Your task to perform on an android device: Do I have any events tomorrow? Image 0: 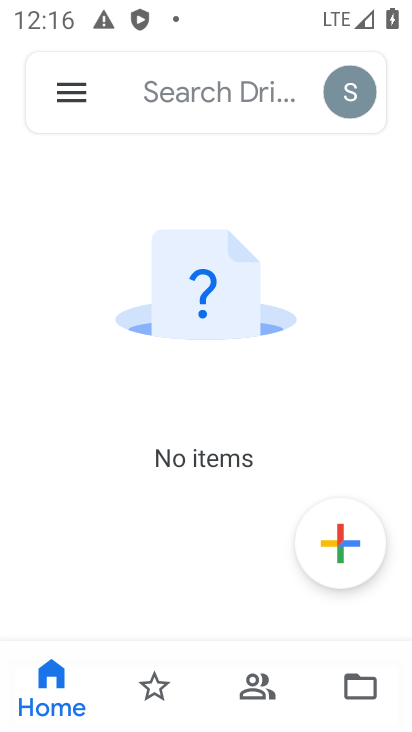
Step 0: press back button
Your task to perform on an android device: Do I have any events tomorrow? Image 1: 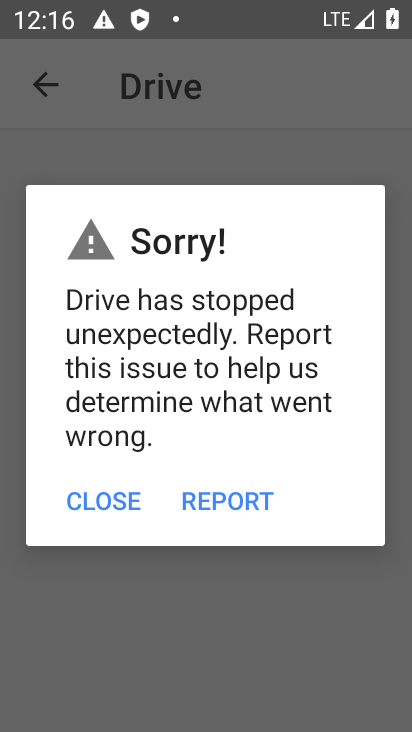
Step 1: press back button
Your task to perform on an android device: Do I have any events tomorrow? Image 2: 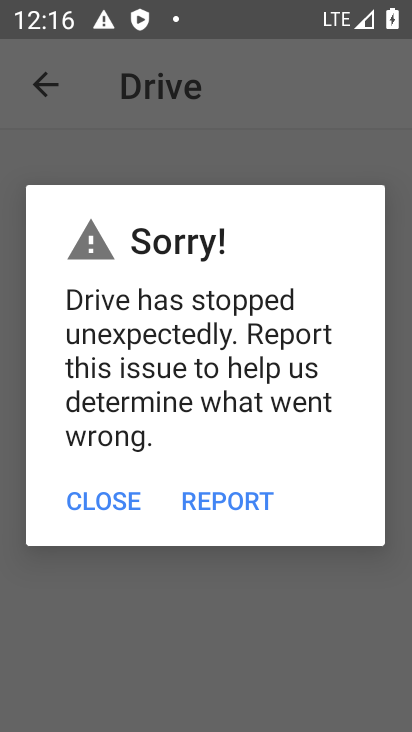
Step 2: press home button
Your task to perform on an android device: Do I have any events tomorrow? Image 3: 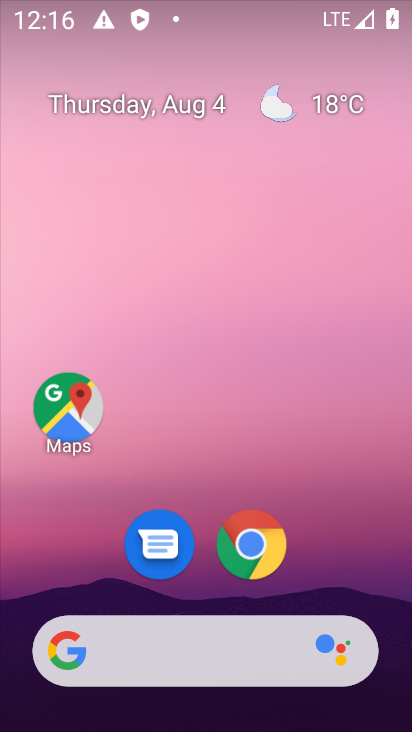
Step 3: drag from (398, 469) to (384, 147)
Your task to perform on an android device: Do I have any events tomorrow? Image 4: 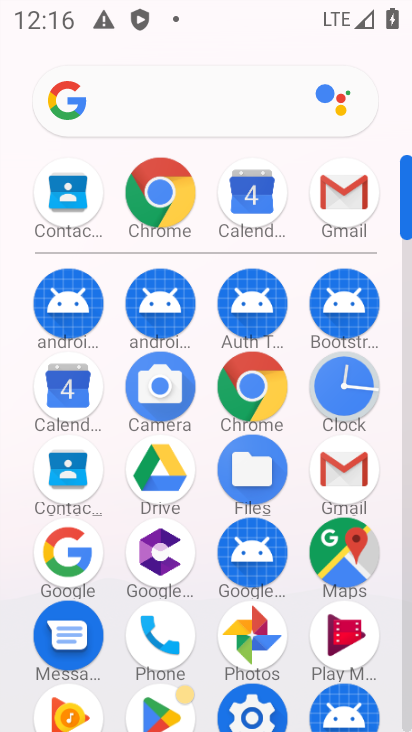
Step 4: click (62, 396)
Your task to perform on an android device: Do I have any events tomorrow? Image 5: 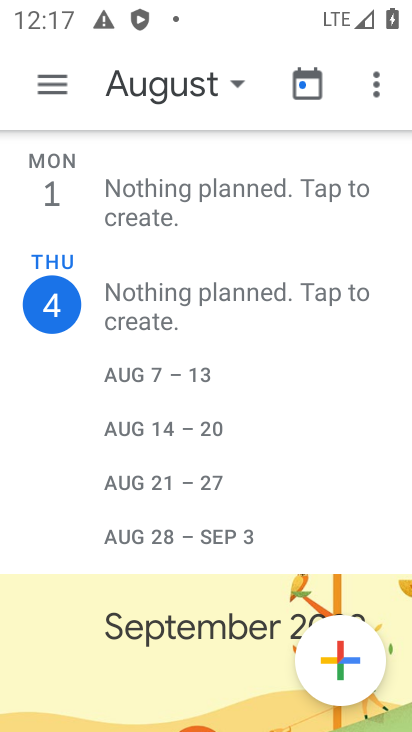
Step 5: click (229, 90)
Your task to perform on an android device: Do I have any events tomorrow? Image 6: 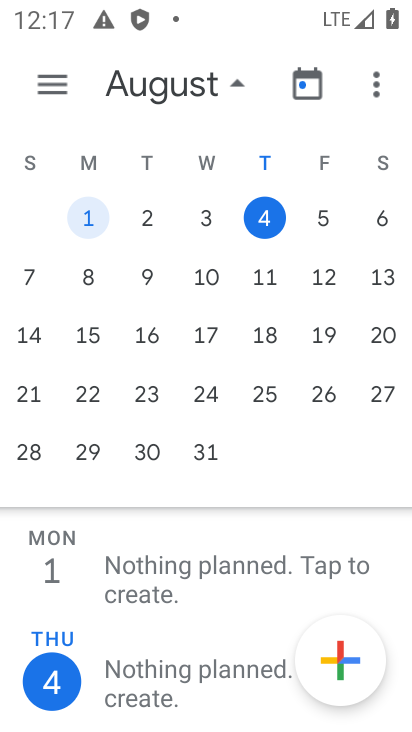
Step 6: click (314, 213)
Your task to perform on an android device: Do I have any events tomorrow? Image 7: 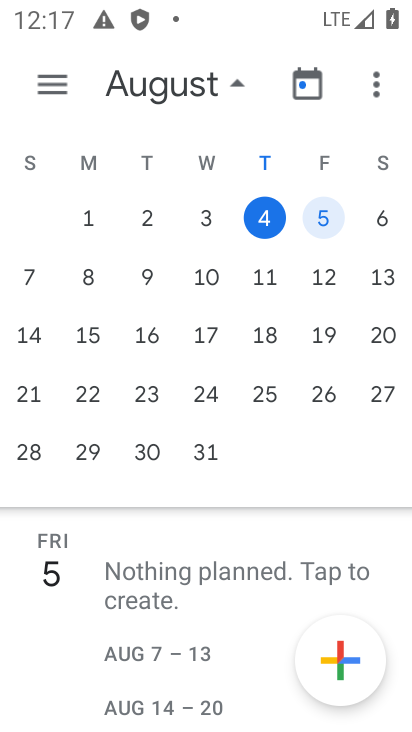
Step 7: click (54, 90)
Your task to perform on an android device: Do I have any events tomorrow? Image 8: 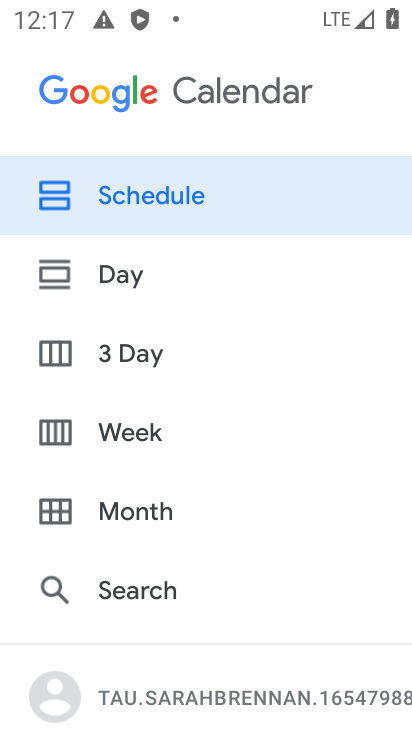
Step 8: click (131, 188)
Your task to perform on an android device: Do I have any events tomorrow? Image 9: 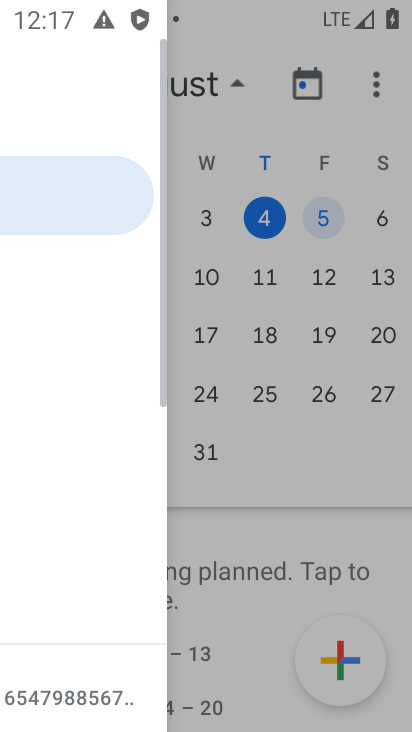
Step 9: click (100, 261)
Your task to perform on an android device: Do I have any events tomorrow? Image 10: 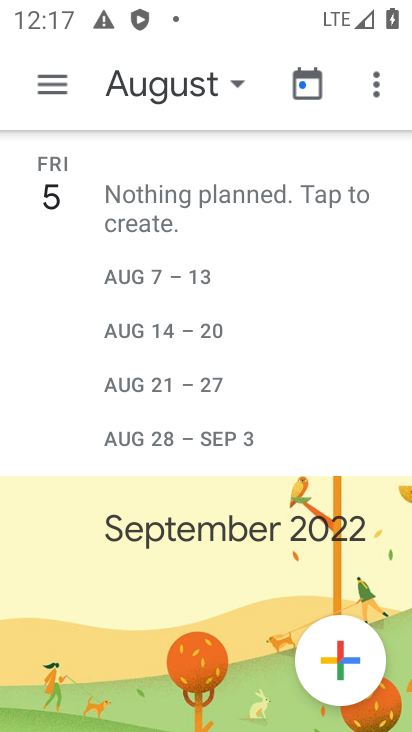
Step 10: click (62, 89)
Your task to perform on an android device: Do I have any events tomorrow? Image 11: 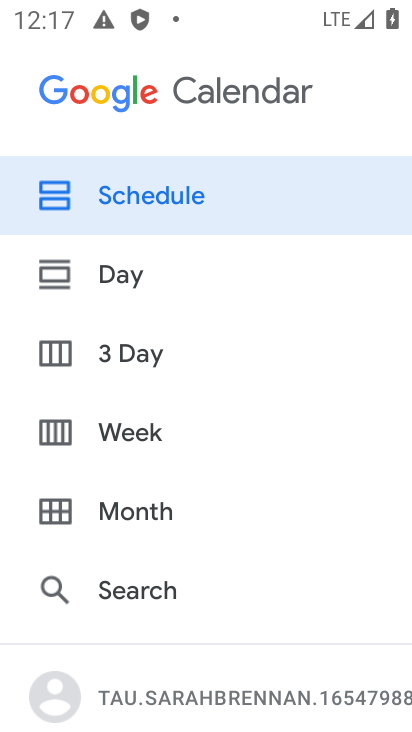
Step 11: click (106, 270)
Your task to perform on an android device: Do I have any events tomorrow? Image 12: 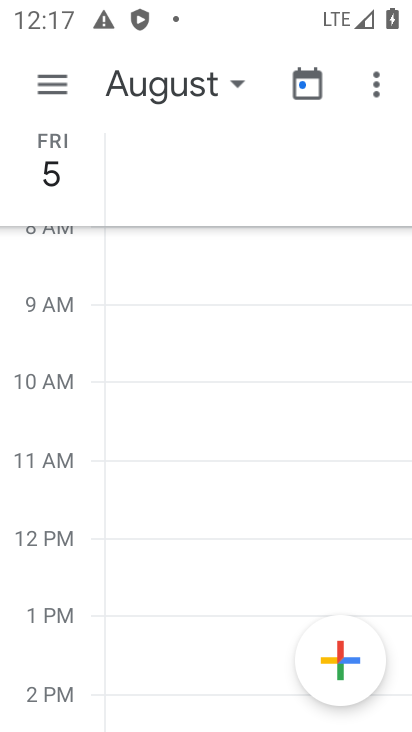
Step 12: click (58, 74)
Your task to perform on an android device: Do I have any events tomorrow? Image 13: 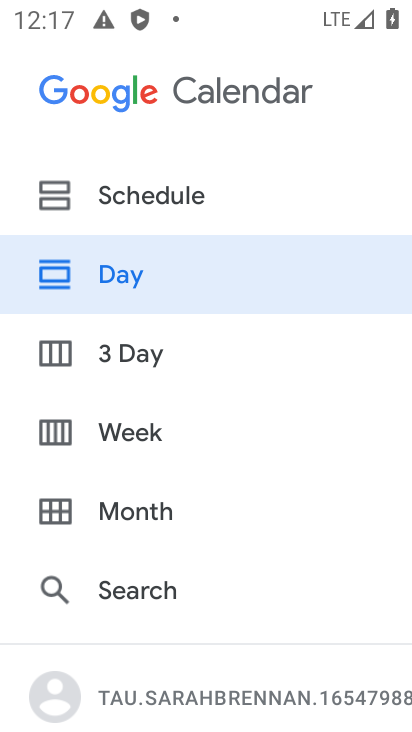
Step 13: click (112, 200)
Your task to perform on an android device: Do I have any events tomorrow? Image 14: 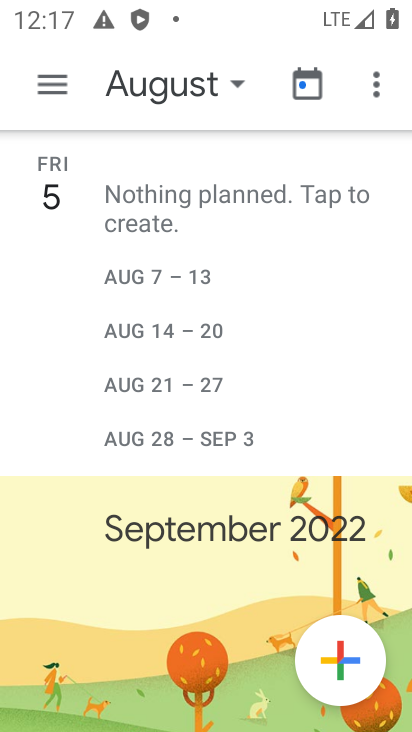
Step 14: task complete